Your task to perform on an android device: Clear all items from cart on target. Image 0: 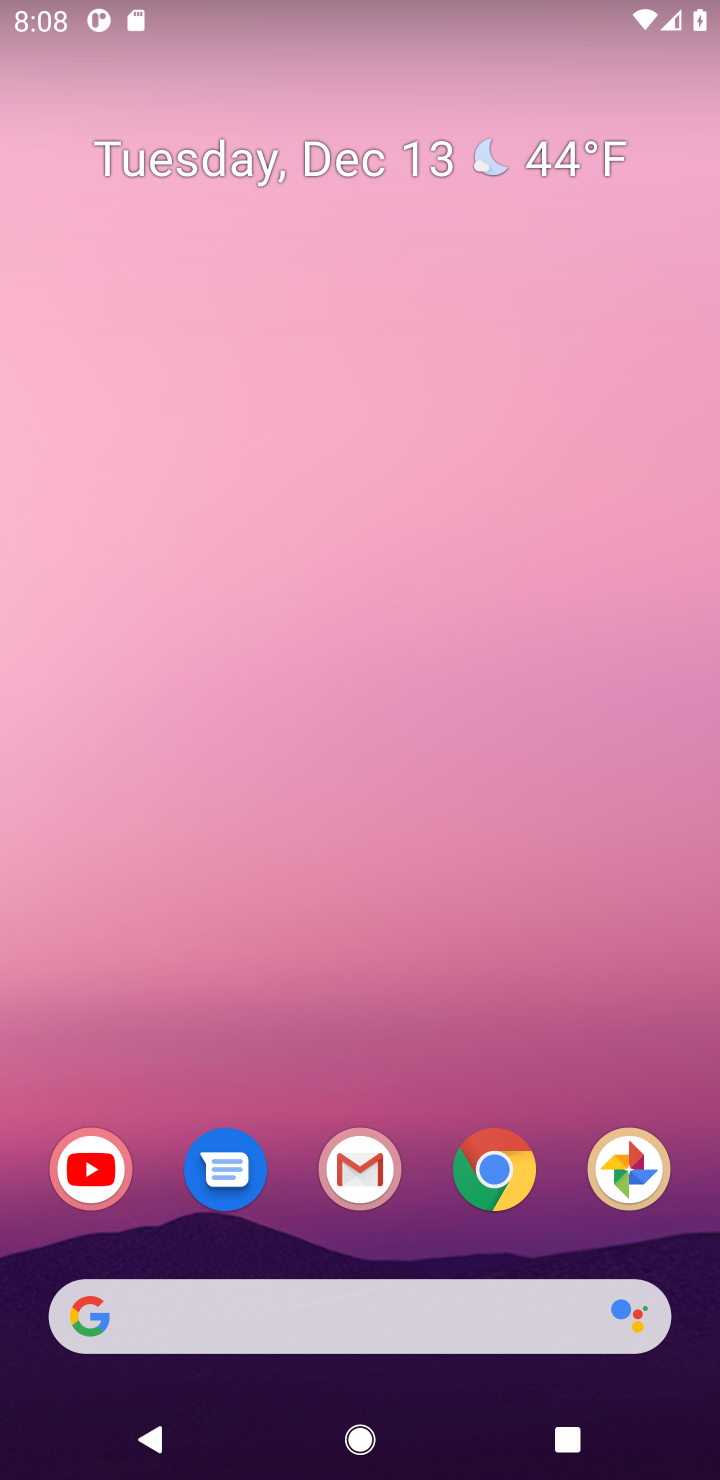
Step 0: click (493, 1202)
Your task to perform on an android device: Clear all items from cart on target. Image 1: 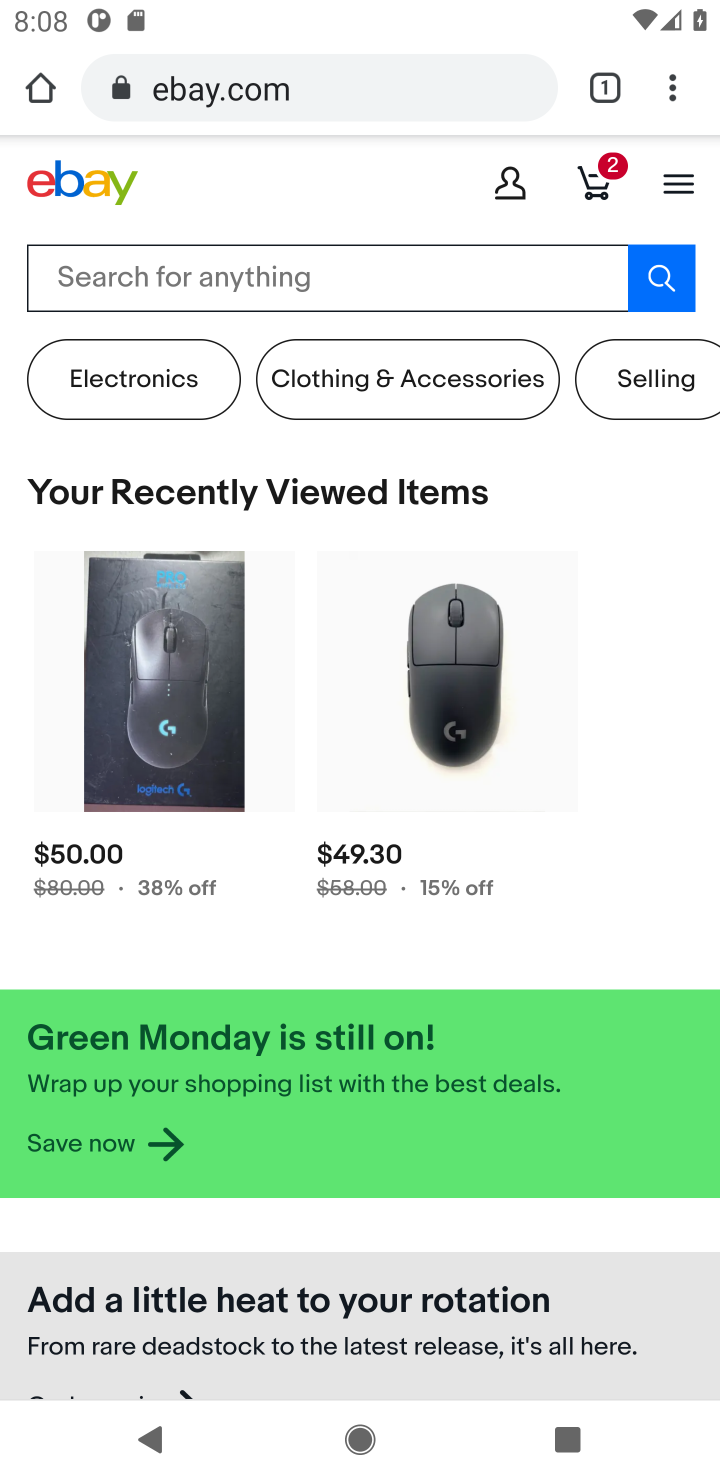
Step 1: click (322, 103)
Your task to perform on an android device: Clear all items from cart on target. Image 2: 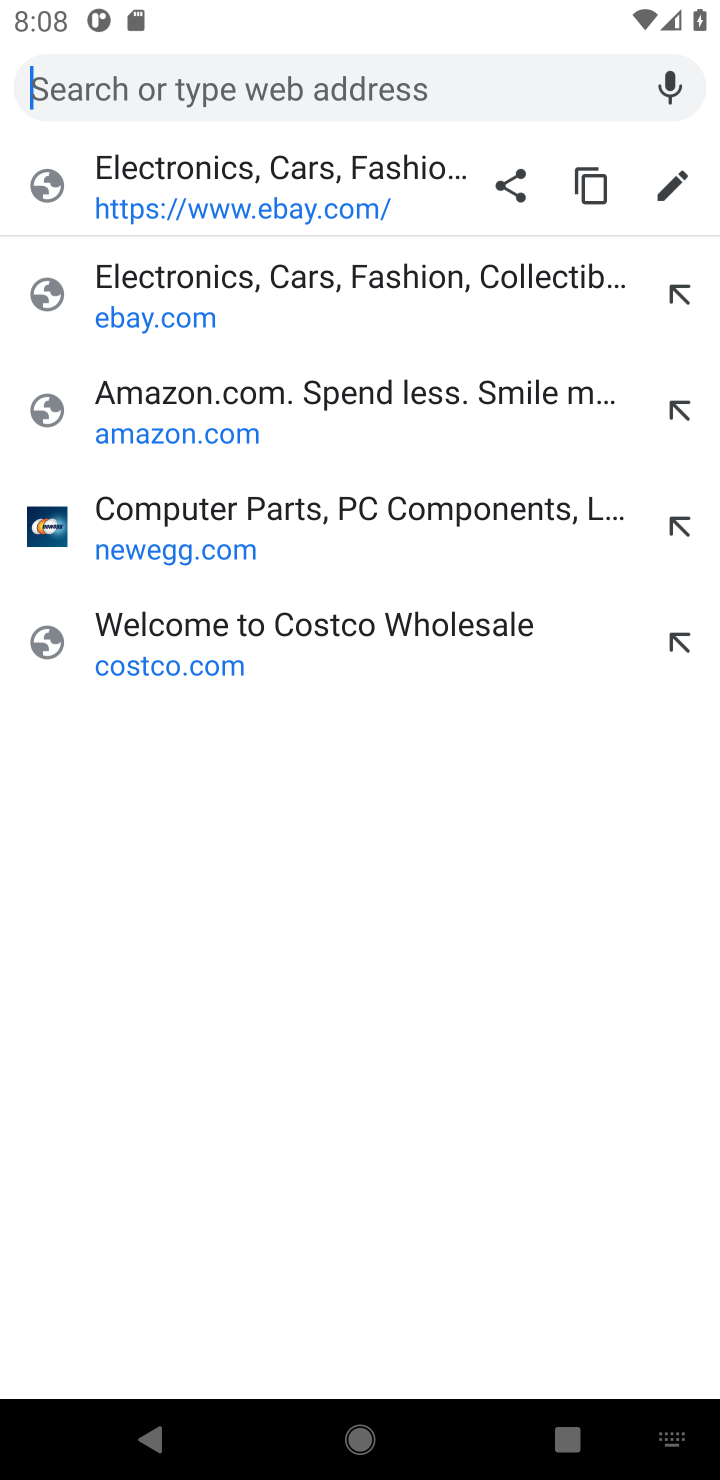
Step 2: type "traget"
Your task to perform on an android device: Clear all items from cart on target. Image 3: 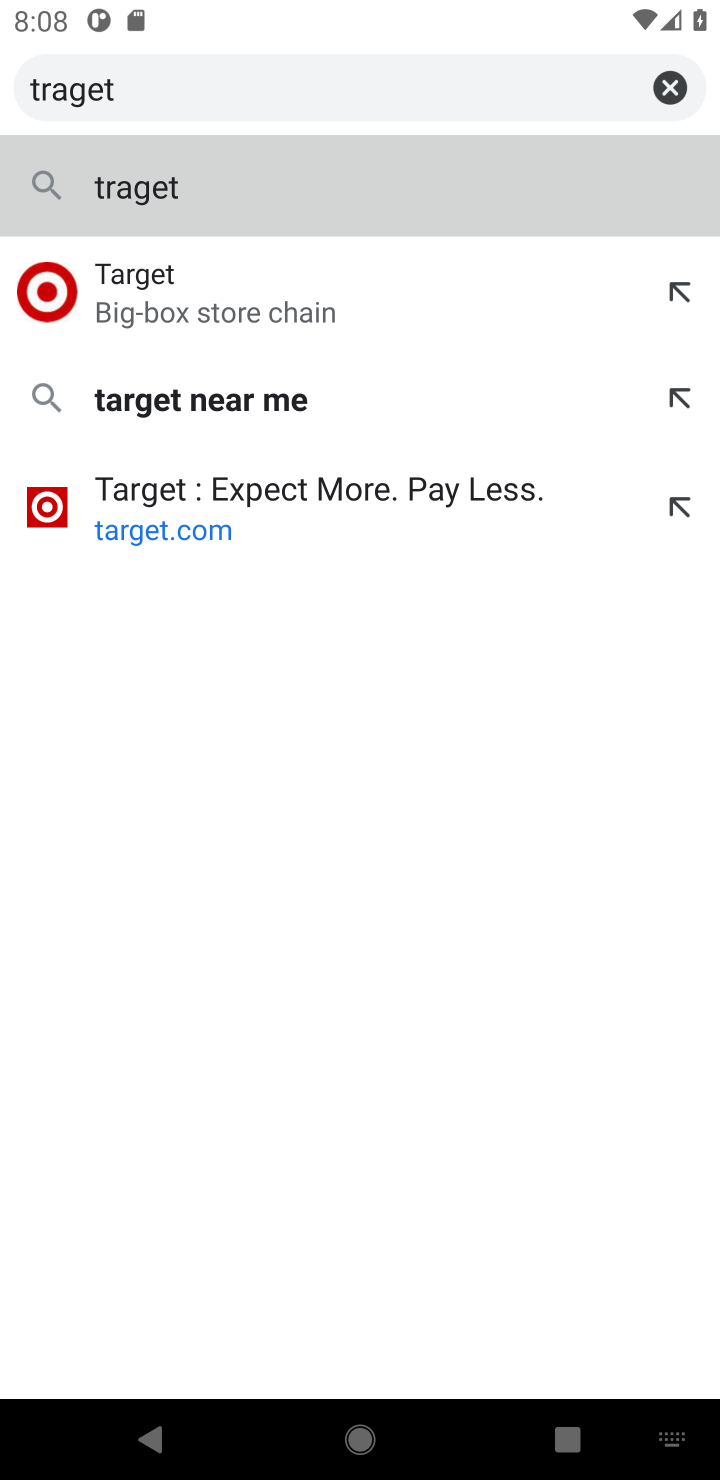
Step 3: click (153, 341)
Your task to perform on an android device: Clear all items from cart on target. Image 4: 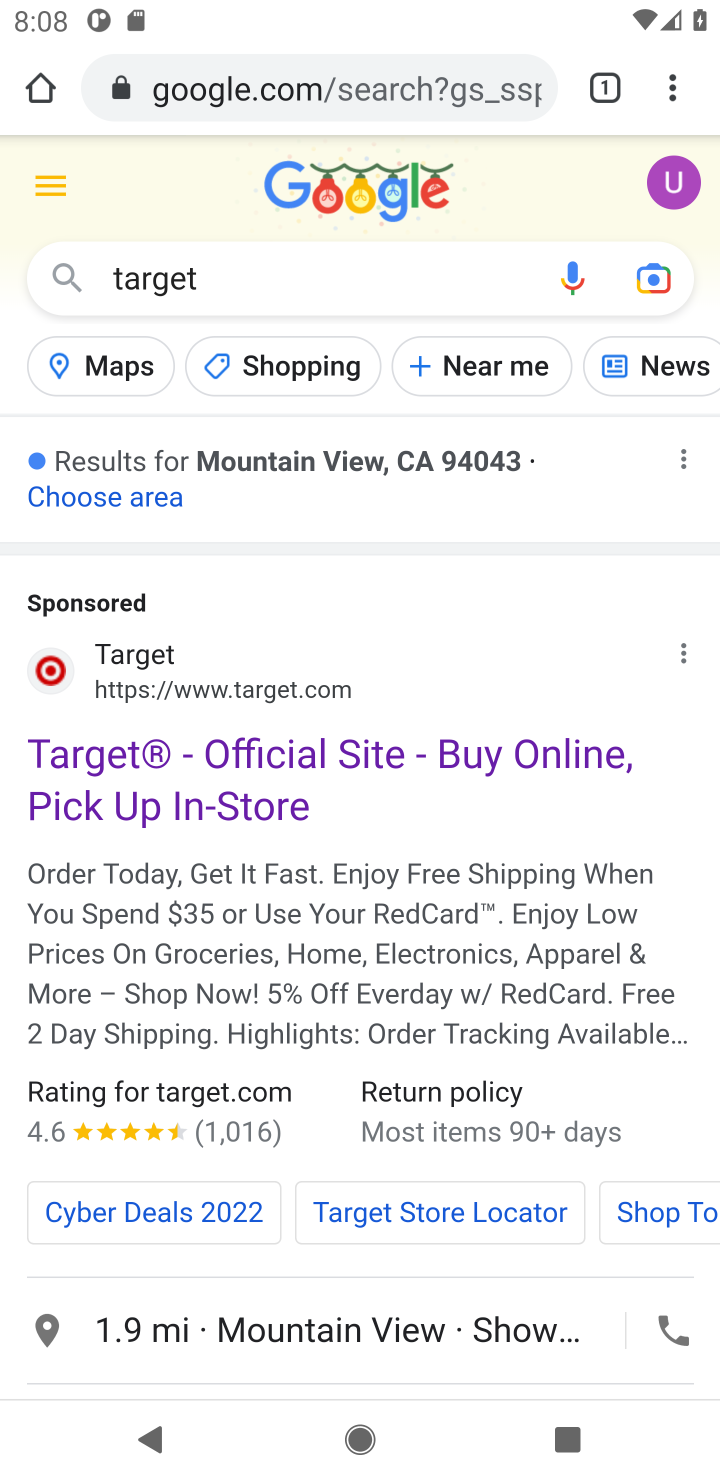
Step 4: click (305, 794)
Your task to perform on an android device: Clear all items from cart on target. Image 5: 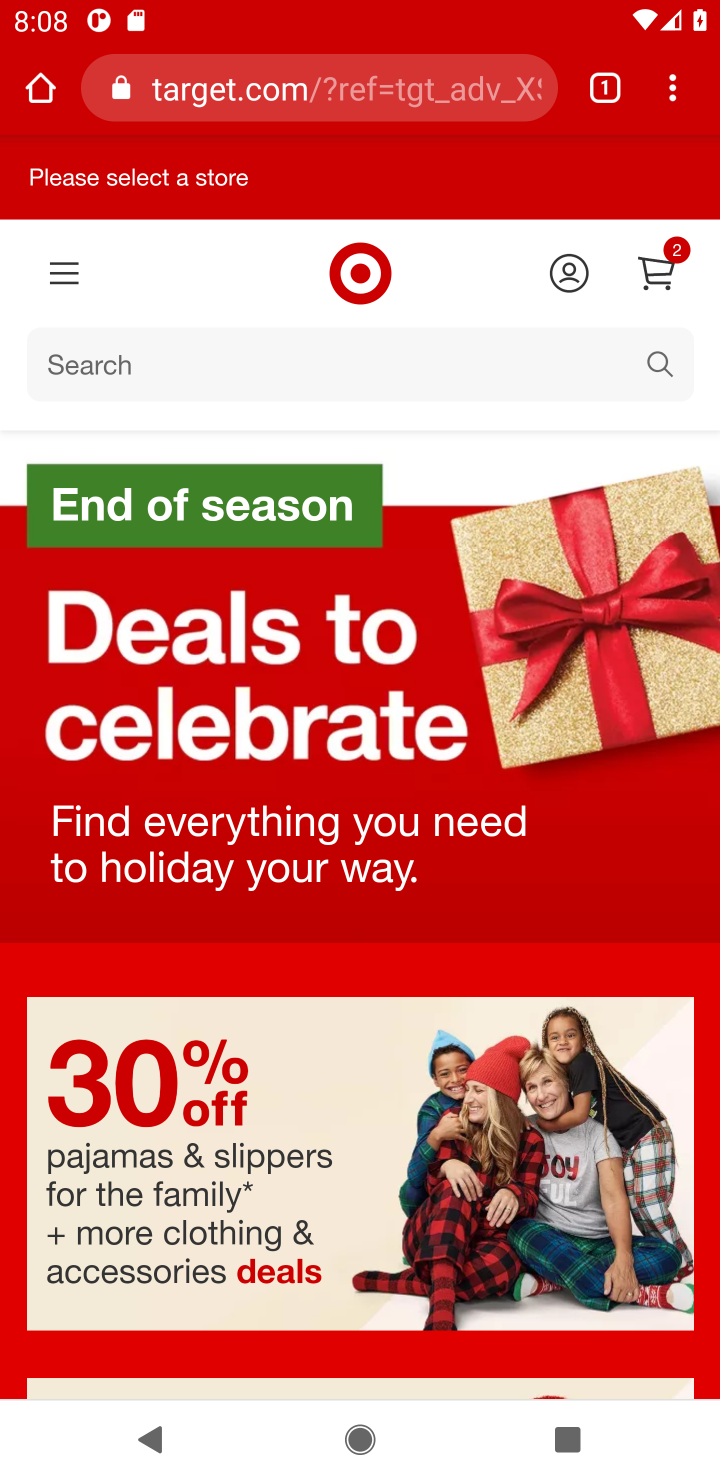
Step 5: click (354, 353)
Your task to perform on an android device: Clear all items from cart on target. Image 6: 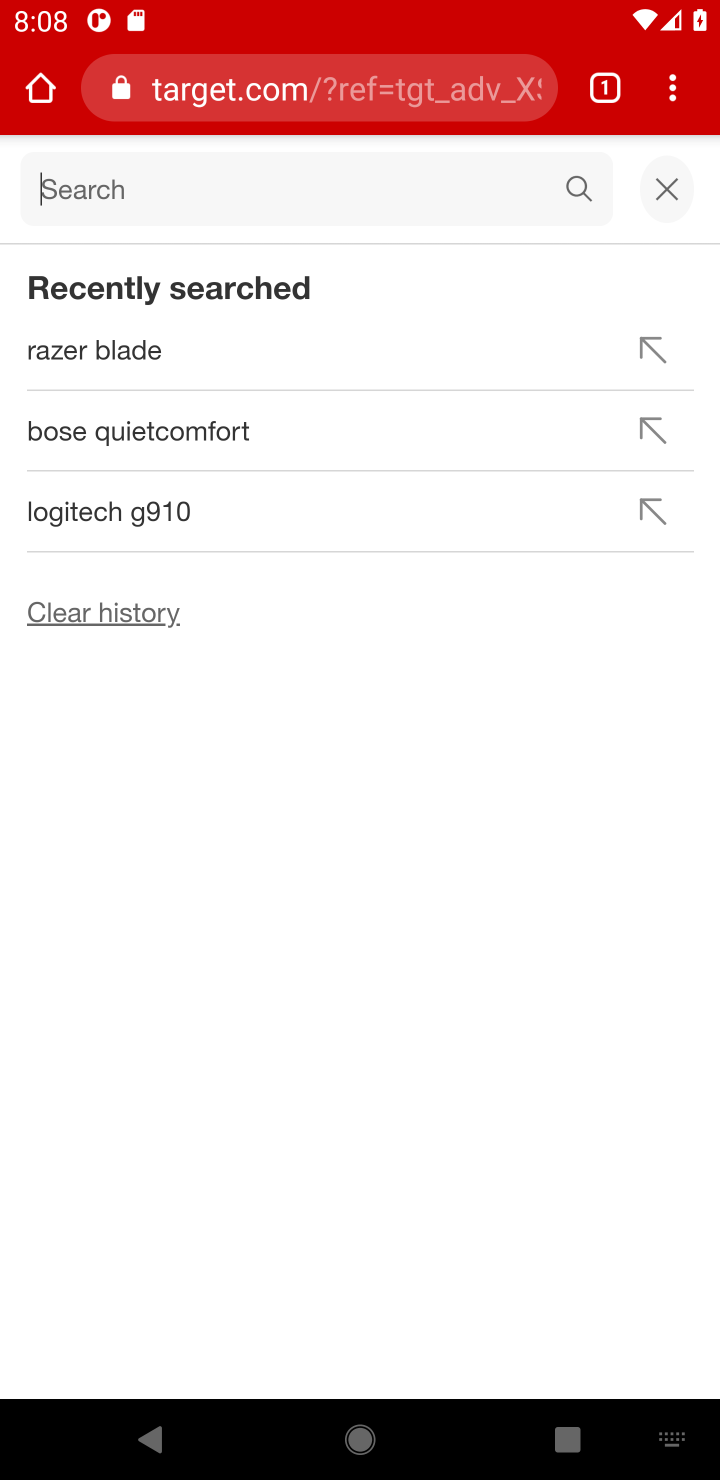
Step 6: click (665, 205)
Your task to perform on an android device: Clear all items from cart on target. Image 7: 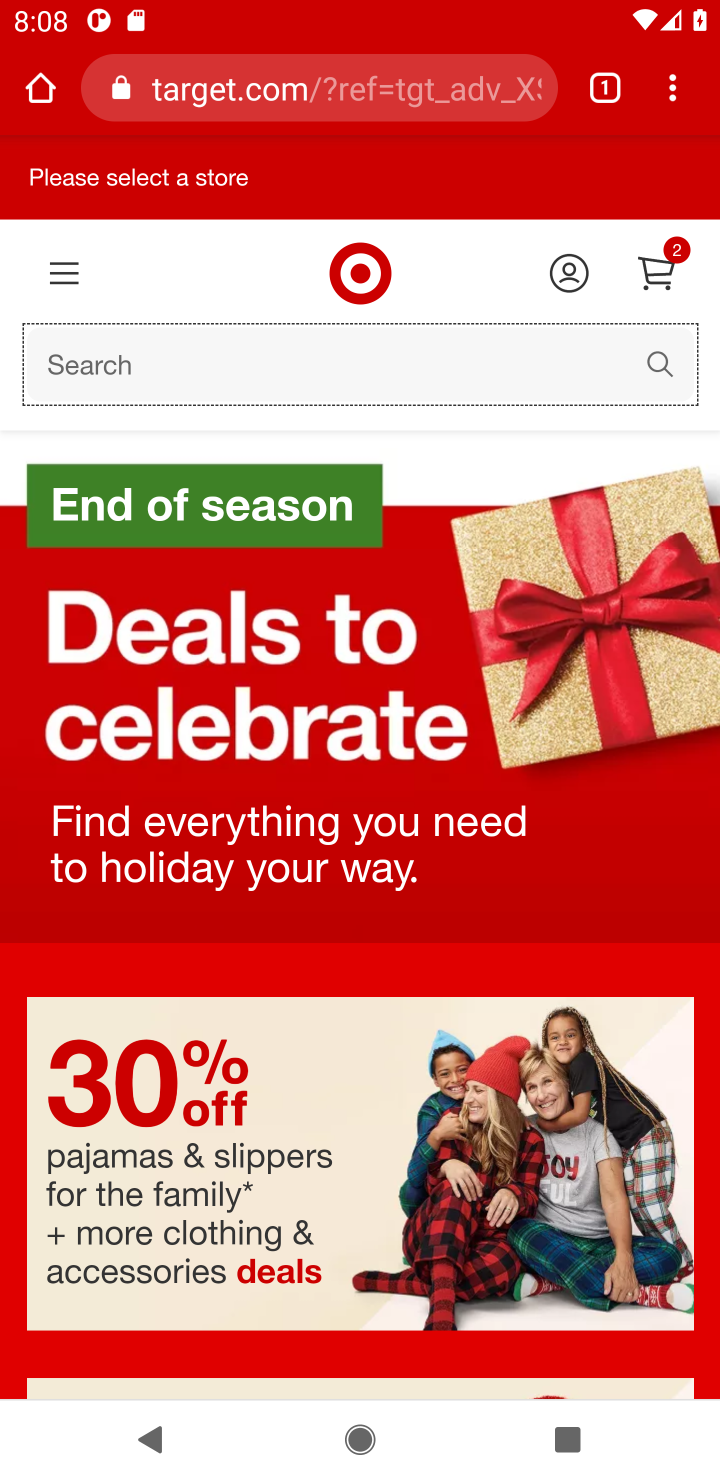
Step 7: click (681, 275)
Your task to perform on an android device: Clear all items from cart on target. Image 8: 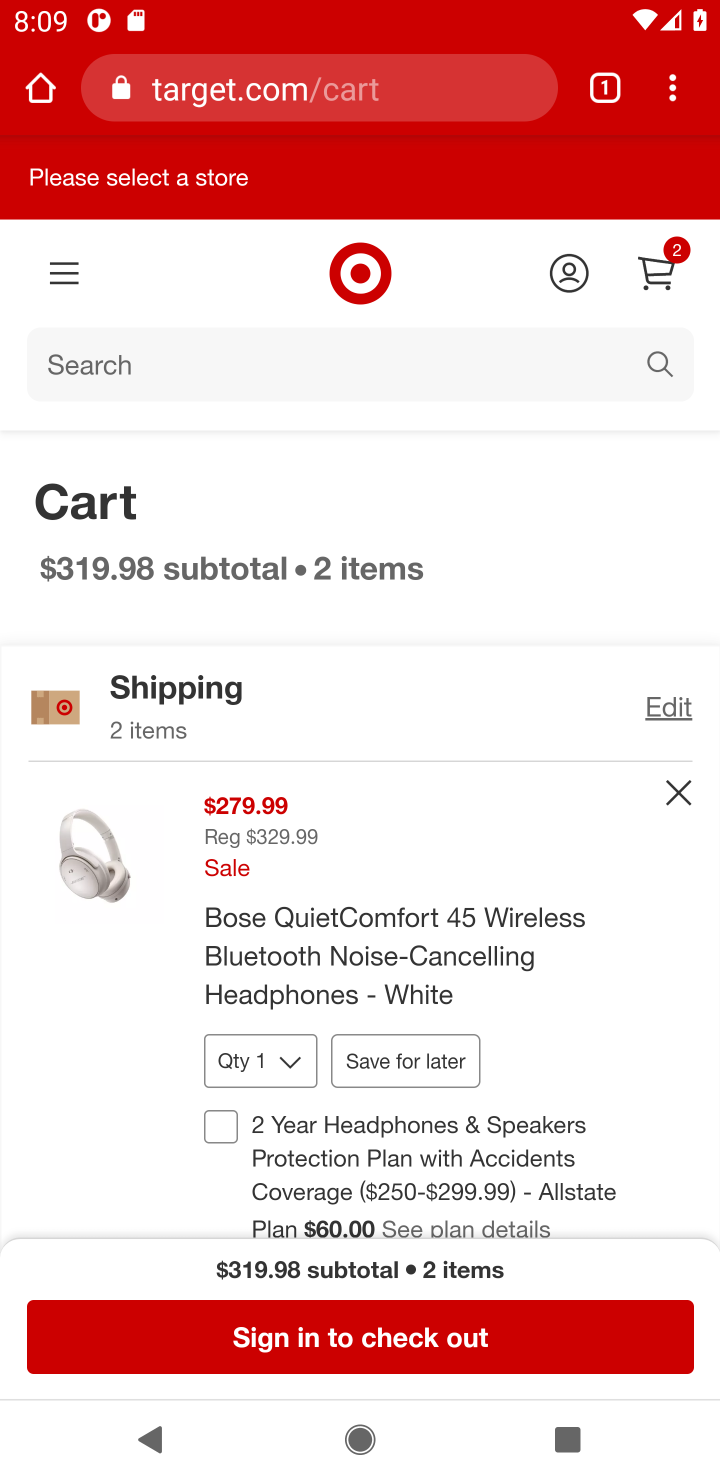
Step 8: click (666, 806)
Your task to perform on an android device: Clear all items from cart on target. Image 9: 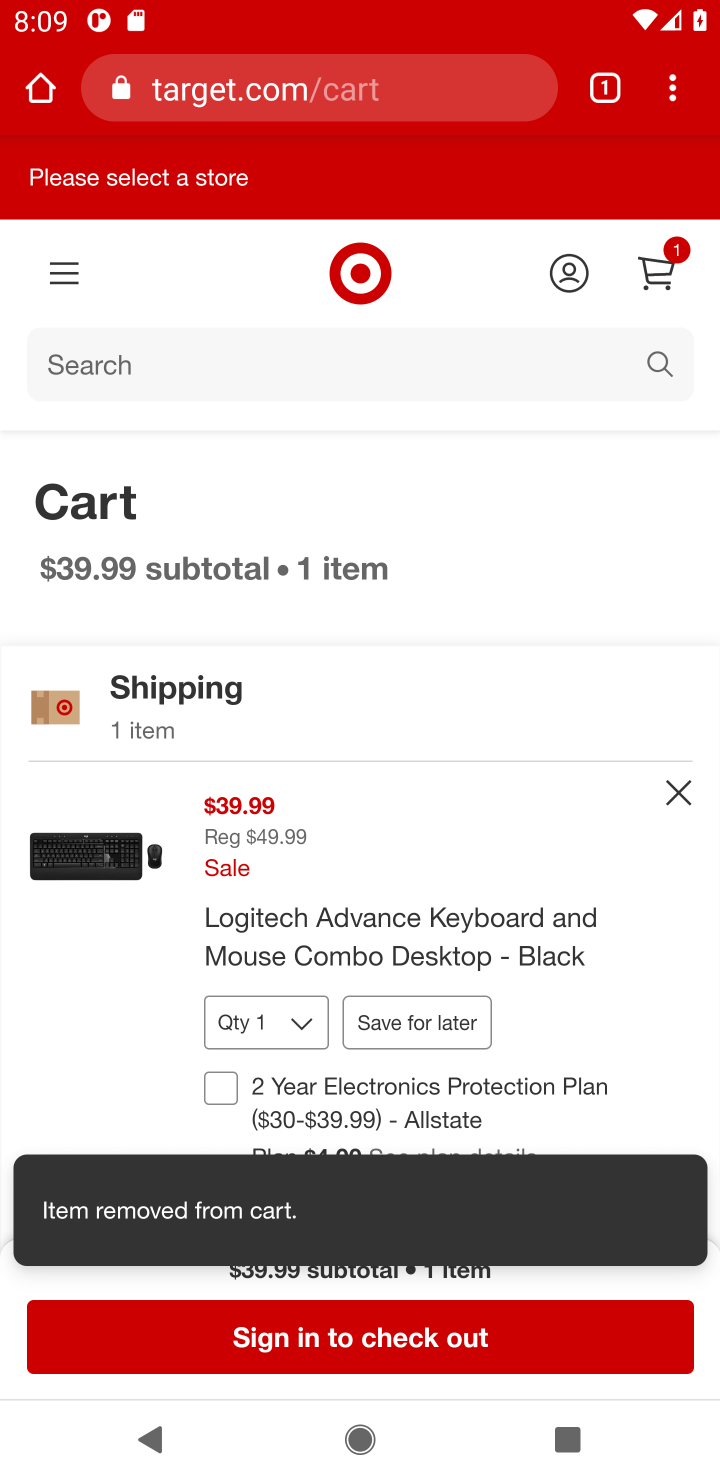
Step 9: click (666, 806)
Your task to perform on an android device: Clear all items from cart on target. Image 10: 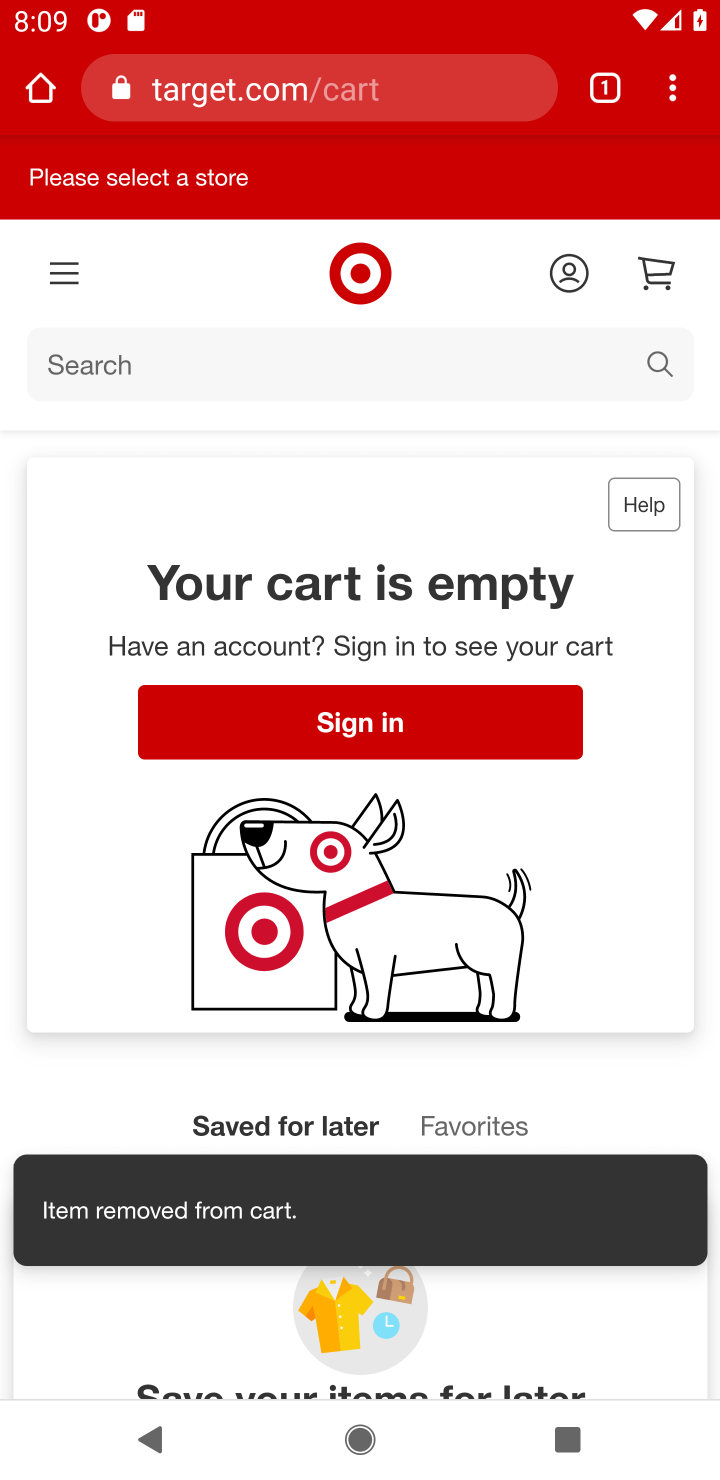
Step 10: task complete